Your task to perform on an android device: turn off improve location accuracy Image 0: 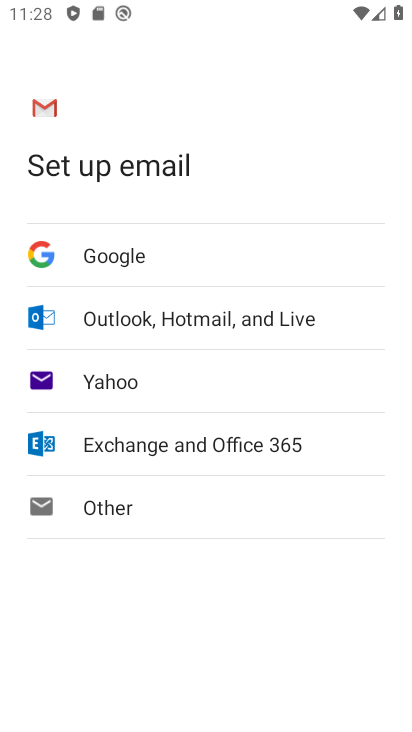
Step 0: press home button
Your task to perform on an android device: turn off improve location accuracy Image 1: 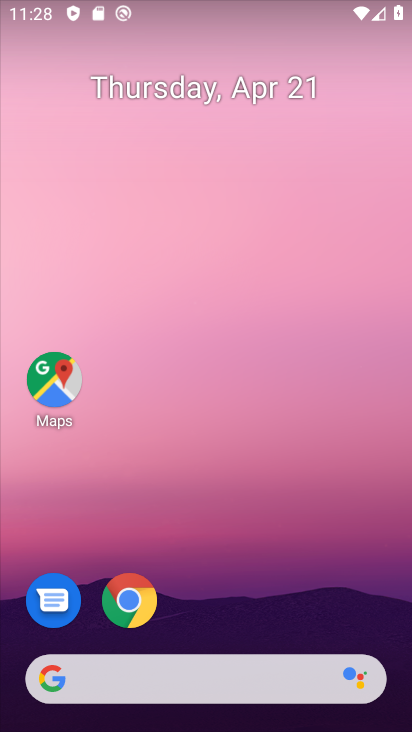
Step 1: drag from (244, 421) to (154, 2)
Your task to perform on an android device: turn off improve location accuracy Image 2: 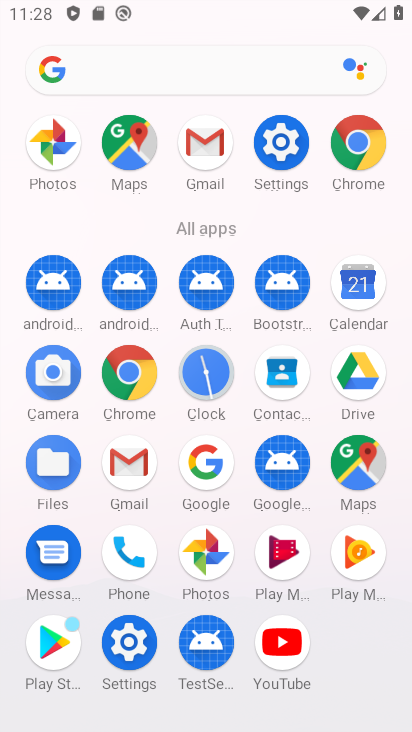
Step 2: click (285, 142)
Your task to perform on an android device: turn off improve location accuracy Image 3: 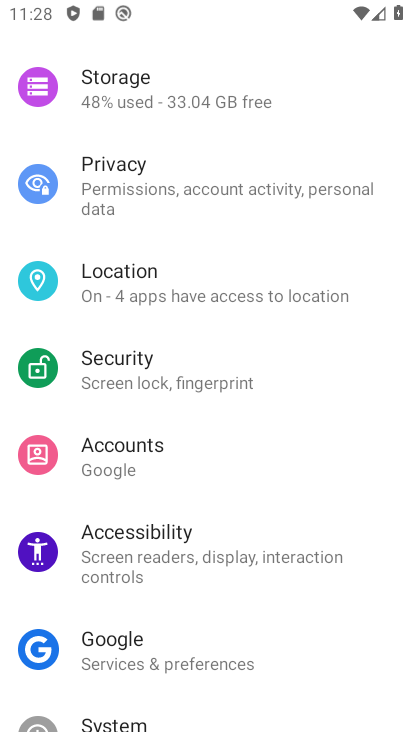
Step 3: drag from (200, 607) to (175, 351)
Your task to perform on an android device: turn off improve location accuracy Image 4: 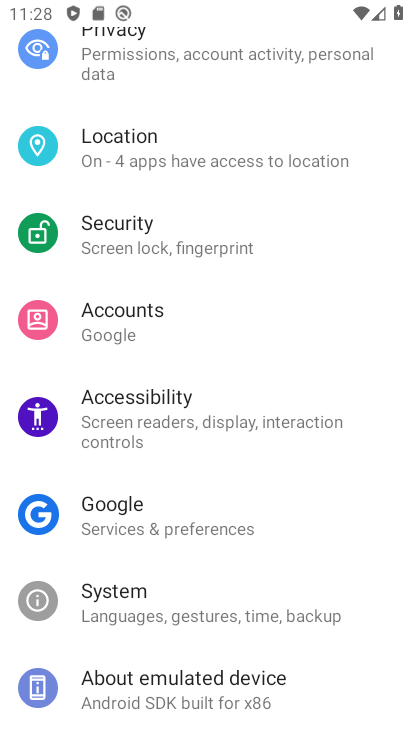
Step 4: click (135, 127)
Your task to perform on an android device: turn off improve location accuracy Image 5: 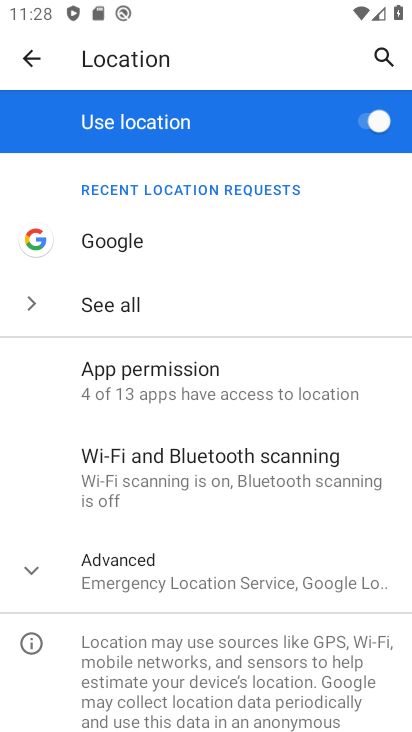
Step 5: click (111, 562)
Your task to perform on an android device: turn off improve location accuracy Image 6: 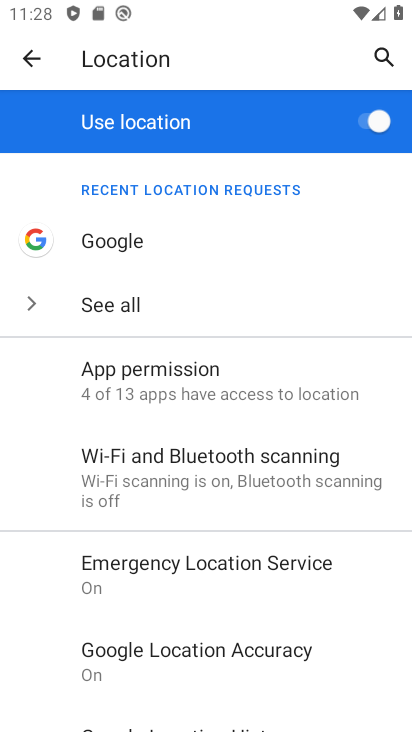
Step 6: click (229, 654)
Your task to perform on an android device: turn off improve location accuracy Image 7: 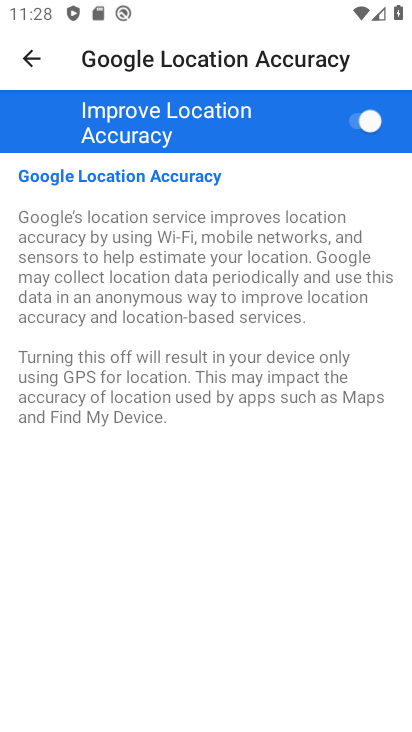
Step 7: click (373, 123)
Your task to perform on an android device: turn off improve location accuracy Image 8: 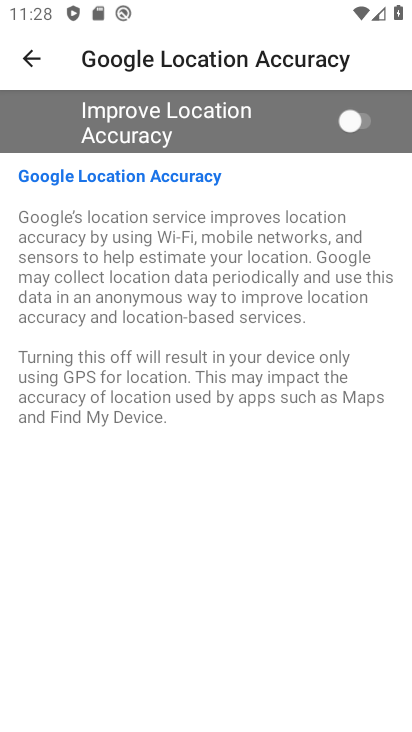
Step 8: task complete